Your task to perform on an android device: What is the news today? Image 0: 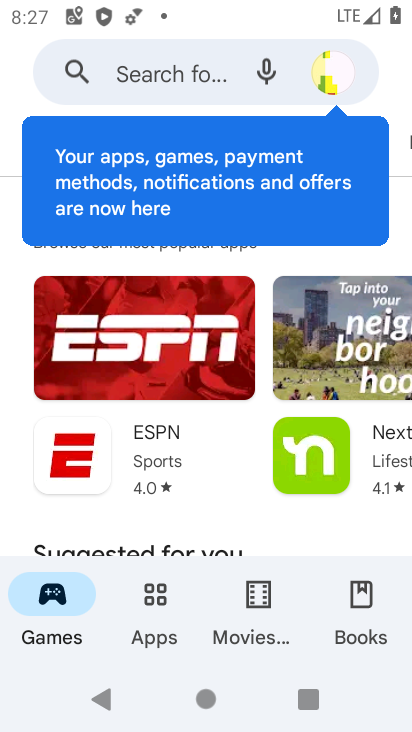
Step 0: press home button
Your task to perform on an android device: What is the news today? Image 1: 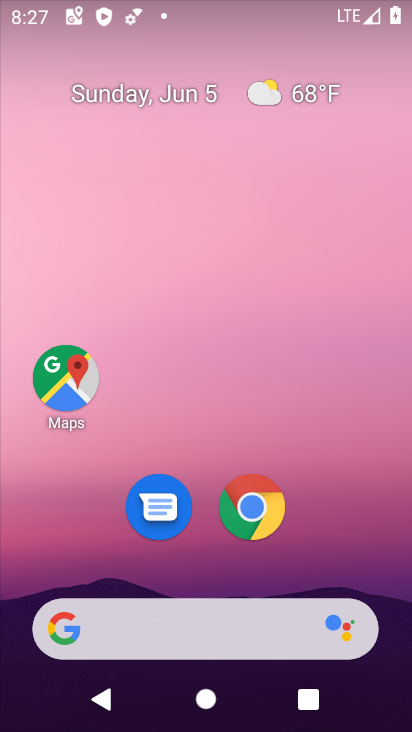
Step 1: click (173, 629)
Your task to perform on an android device: What is the news today? Image 2: 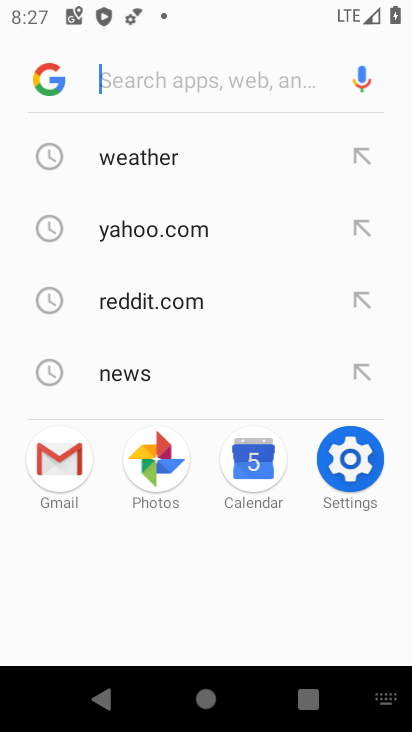
Step 2: type "news today ?"
Your task to perform on an android device: What is the news today? Image 3: 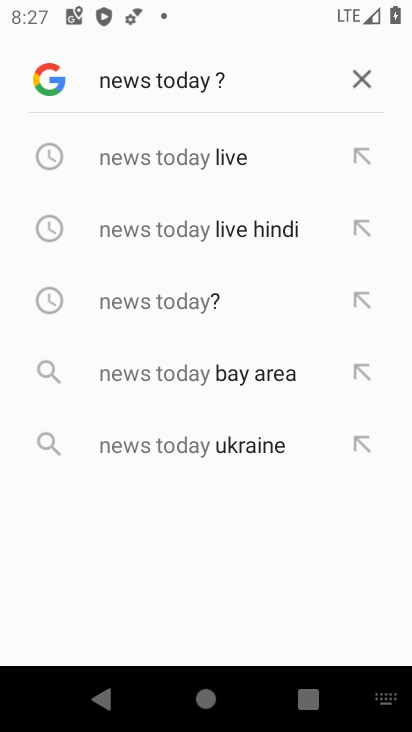
Step 3: click (226, 306)
Your task to perform on an android device: What is the news today? Image 4: 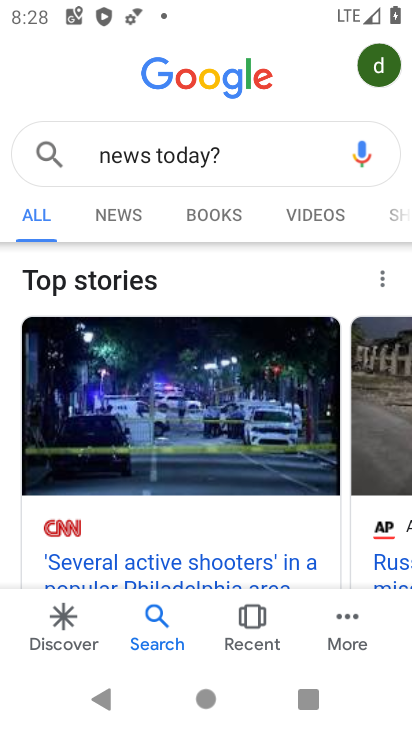
Step 4: task complete